Your task to perform on an android device: Show me popular videos on Youtube Image 0: 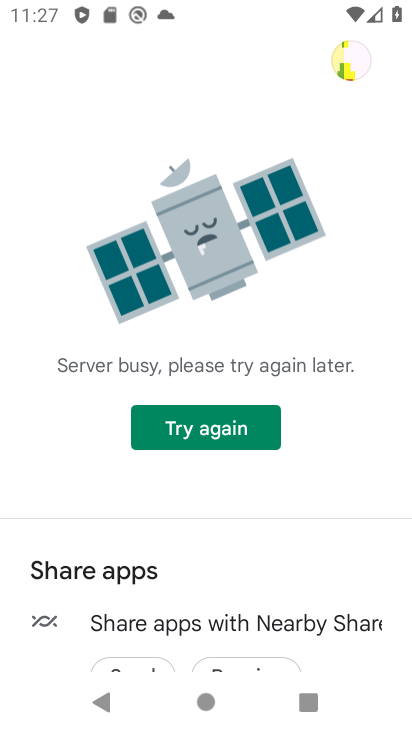
Step 0: press home button
Your task to perform on an android device: Show me popular videos on Youtube Image 1: 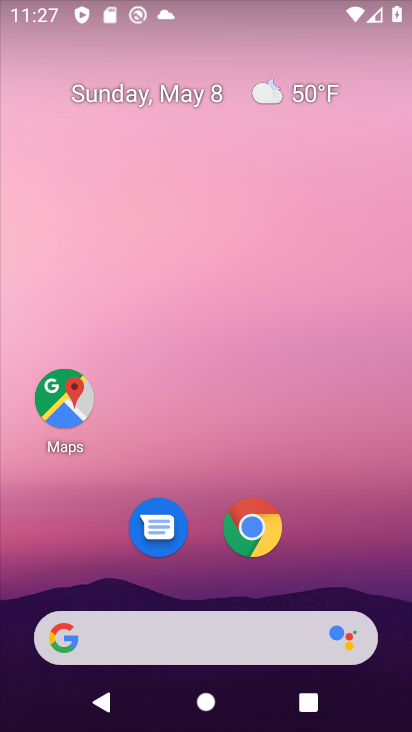
Step 1: drag from (230, 719) to (234, 162)
Your task to perform on an android device: Show me popular videos on Youtube Image 2: 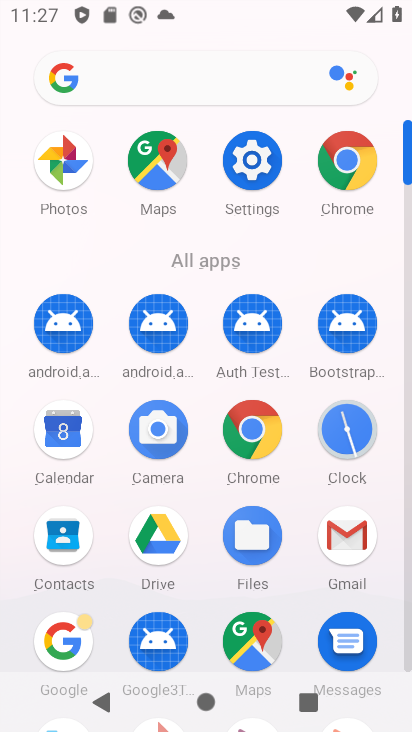
Step 2: drag from (204, 616) to (194, 266)
Your task to perform on an android device: Show me popular videos on Youtube Image 3: 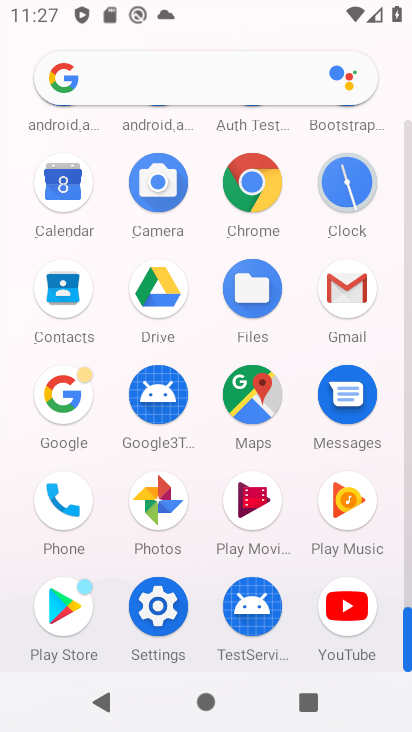
Step 3: click (343, 601)
Your task to perform on an android device: Show me popular videos on Youtube Image 4: 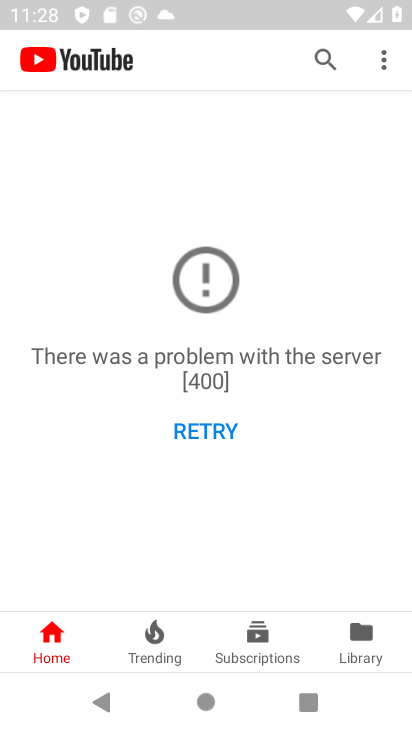
Step 4: task complete